Your task to perform on an android device: find snoozed emails in the gmail app Image 0: 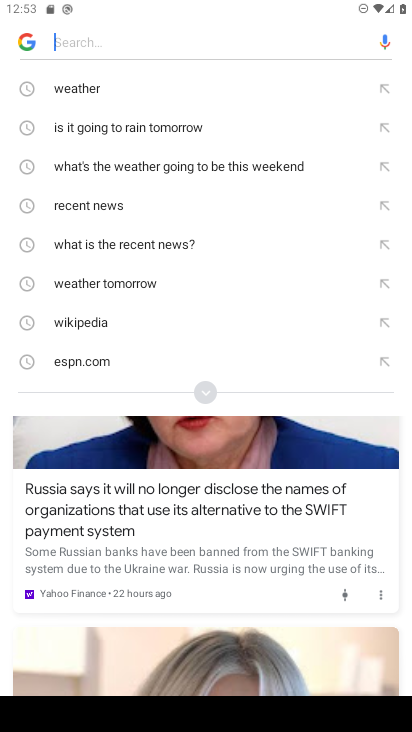
Step 0: press home button
Your task to perform on an android device: find snoozed emails in the gmail app Image 1: 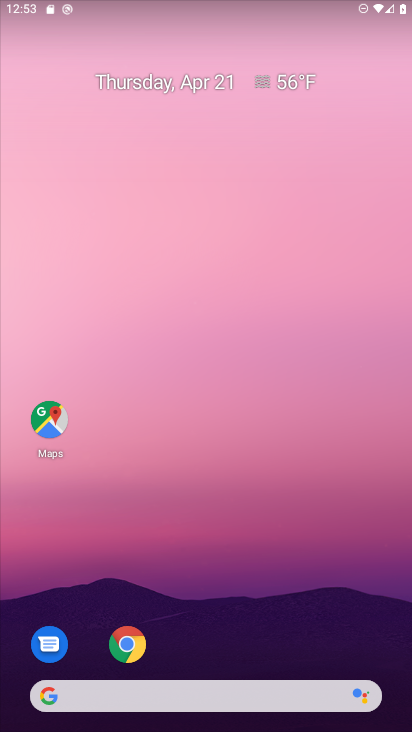
Step 1: drag from (179, 665) to (233, 10)
Your task to perform on an android device: find snoozed emails in the gmail app Image 2: 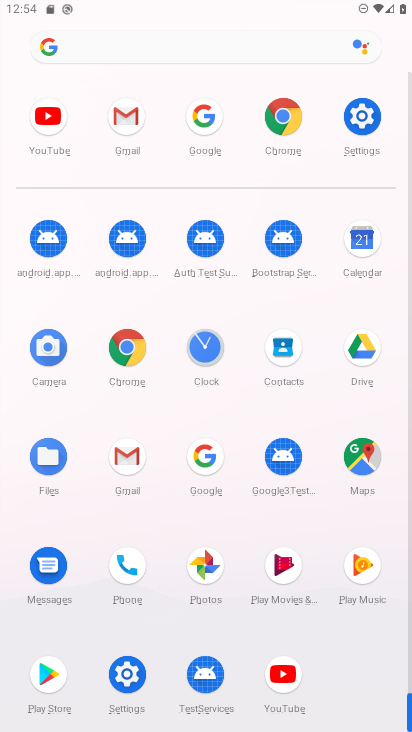
Step 2: click (125, 463)
Your task to perform on an android device: find snoozed emails in the gmail app Image 3: 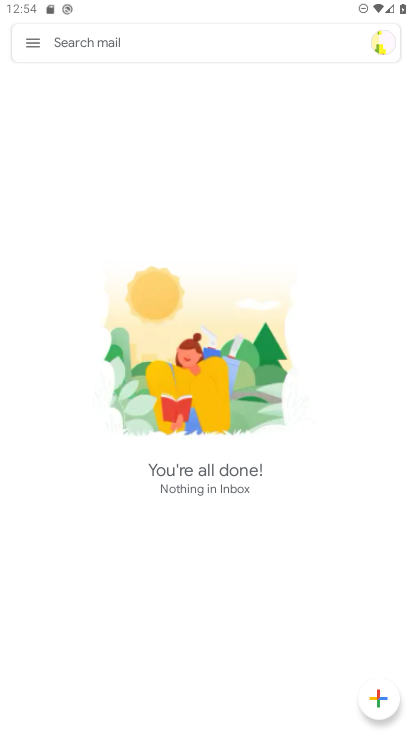
Step 3: click (25, 50)
Your task to perform on an android device: find snoozed emails in the gmail app Image 4: 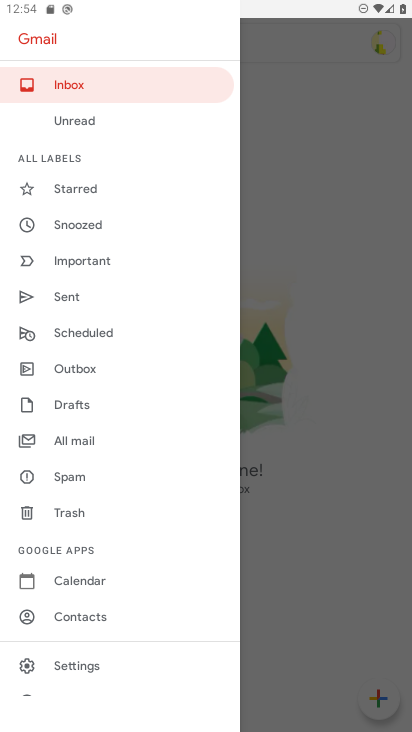
Step 4: click (80, 233)
Your task to perform on an android device: find snoozed emails in the gmail app Image 5: 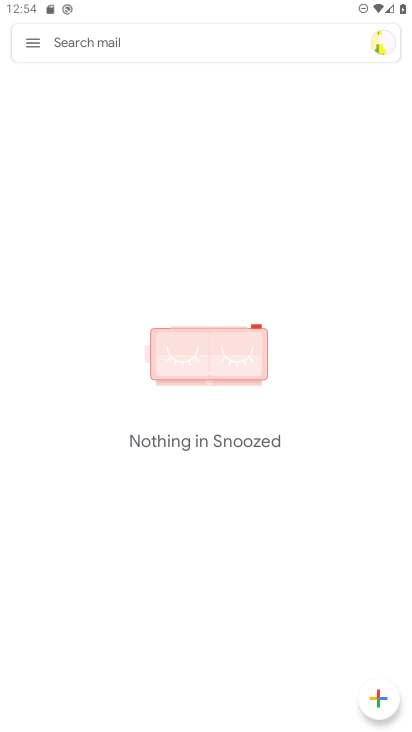
Step 5: task complete